Your task to perform on an android device: Open Google Chrome Image 0: 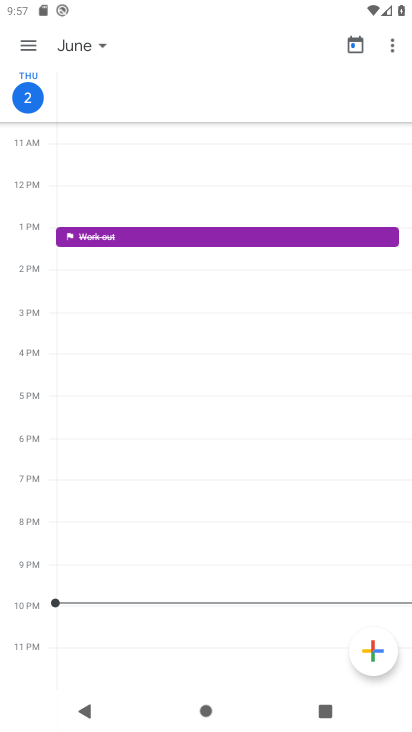
Step 0: press back button
Your task to perform on an android device: Open Google Chrome Image 1: 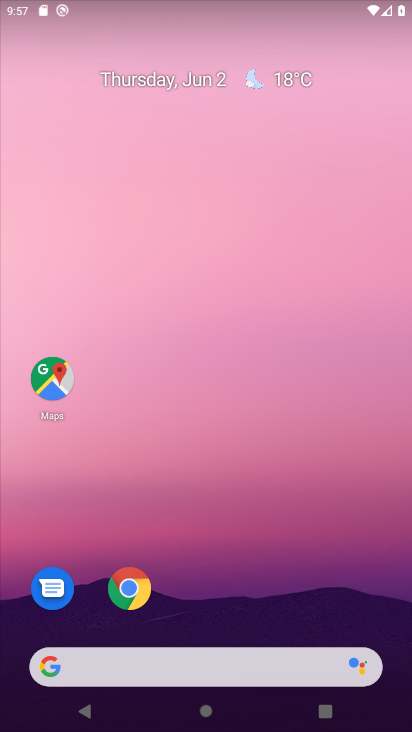
Step 1: drag from (278, 705) to (258, 136)
Your task to perform on an android device: Open Google Chrome Image 2: 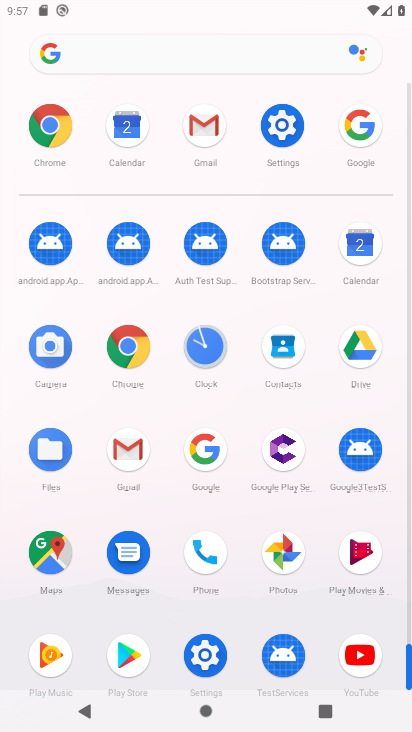
Step 2: click (53, 135)
Your task to perform on an android device: Open Google Chrome Image 3: 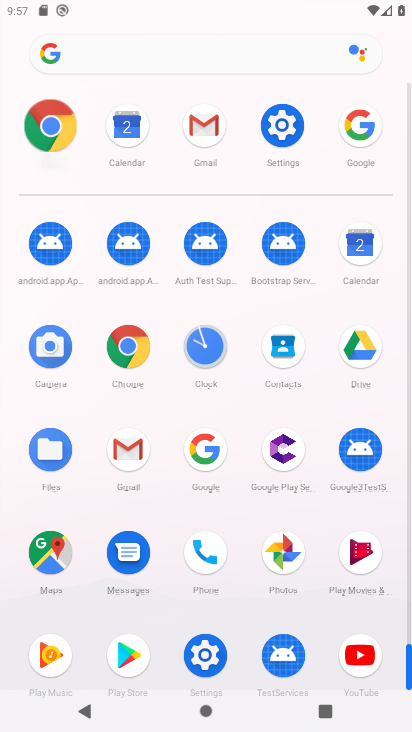
Step 3: click (50, 133)
Your task to perform on an android device: Open Google Chrome Image 4: 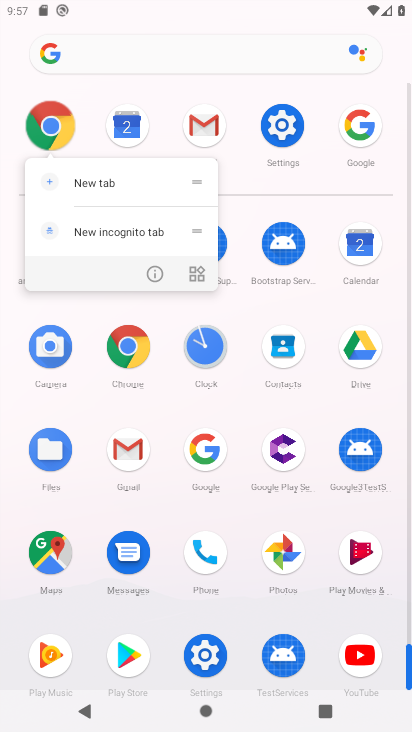
Step 4: click (47, 134)
Your task to perform on an android device: Open Google Chrome Image 5: 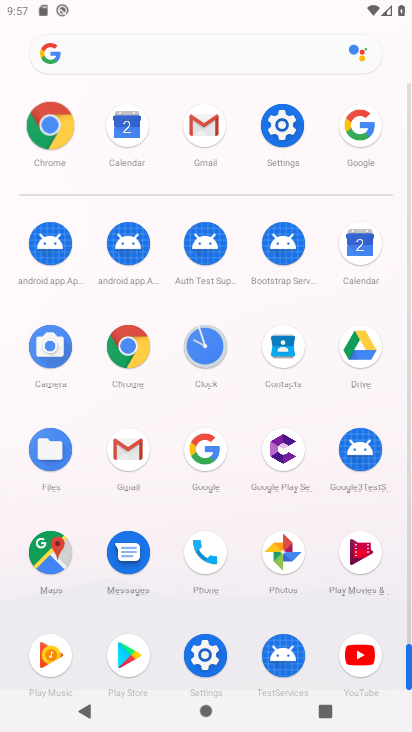
Step 5: click (56, 138)
Your task to perform on an android device: Open Google Chrome Image 6: 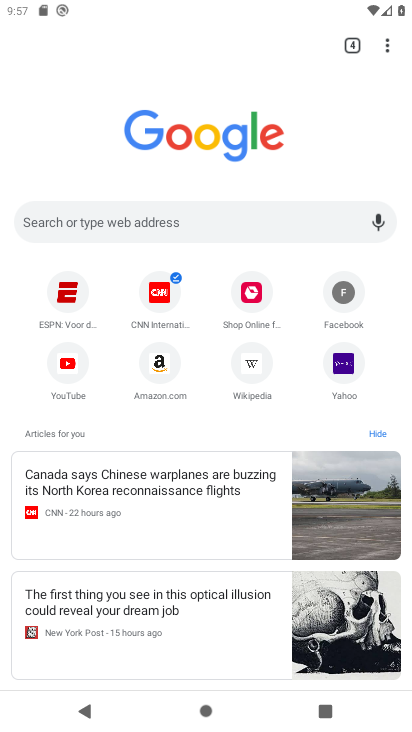
Step 6: task complete